Your task to perform on an android device: turn on the 24-hour format for clock Image 0: 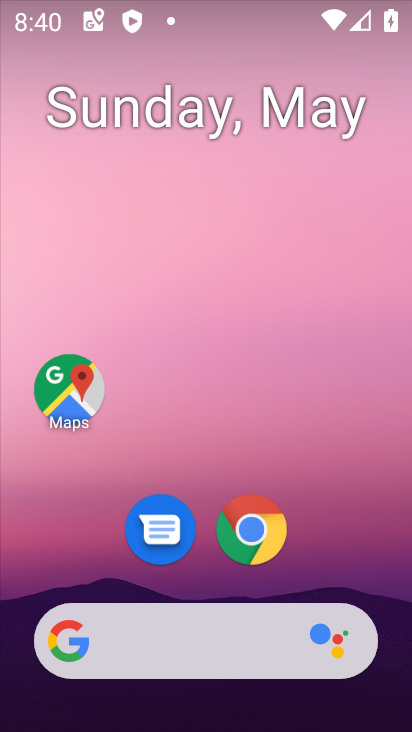
Step 0: press home button
Your task to perform on an android device: turn on the 24-hour format for clock Image 1: 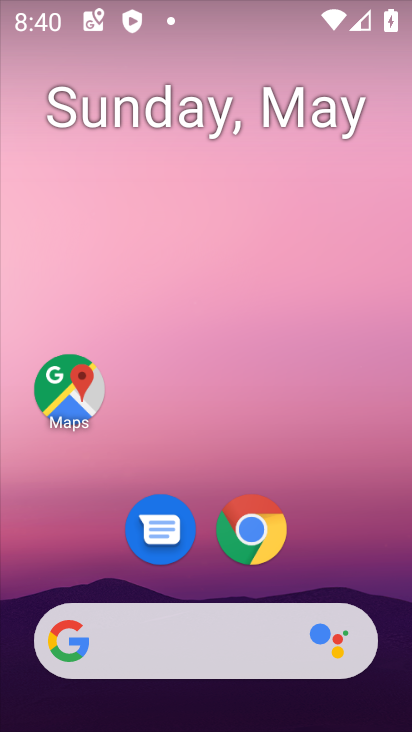
Step 1: drag from (331, 596) to (361, 70)
Your task to perform on an android device: turn on the 24-hour format for clock Image 2: 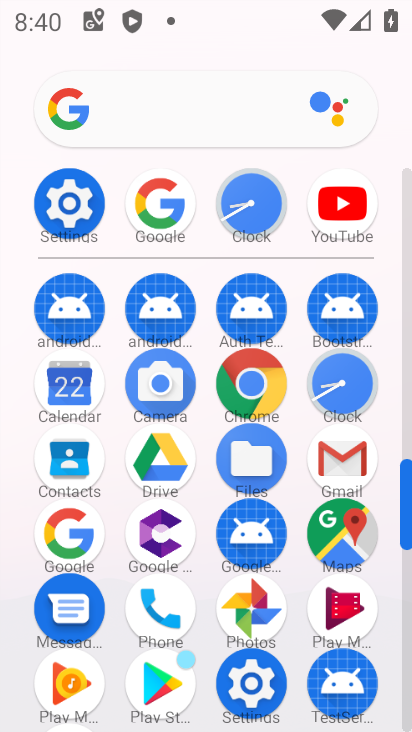
Step 2: click (249, 210)
Your task to perform on an android device: turn on the 24-hour format for clock Image 3: 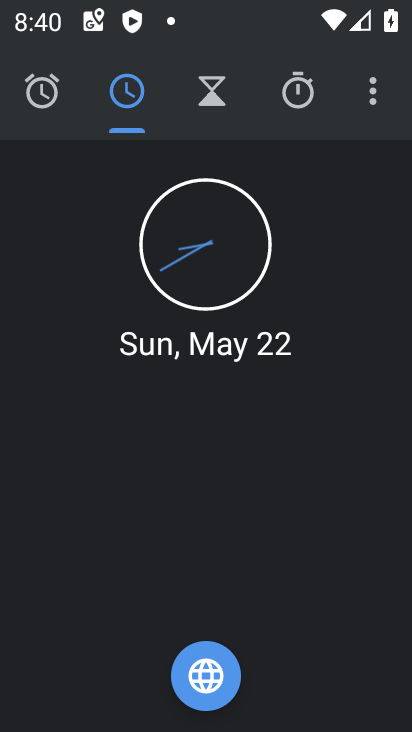
Step 3: click (372, 97)
Your task to perform on an android device: turn on the 24-hour format for clock Image 4: 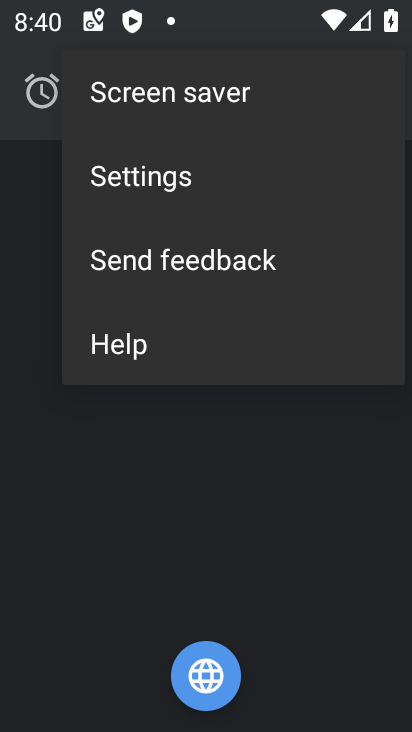
Step 4: click (138, 194)
Your task to perform on an android device: turn on the 24-hour format for clock Image 5: 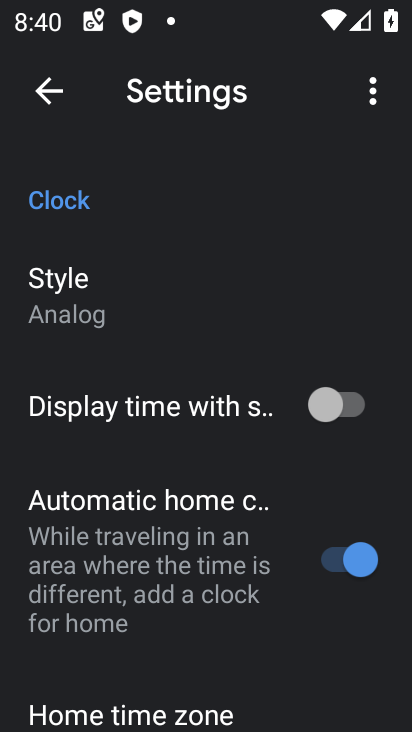
Step 5: drag from (156, 551) to (118, 35)
Your task to perform on an android device: turn on the 24-hour format for clock Image 6: 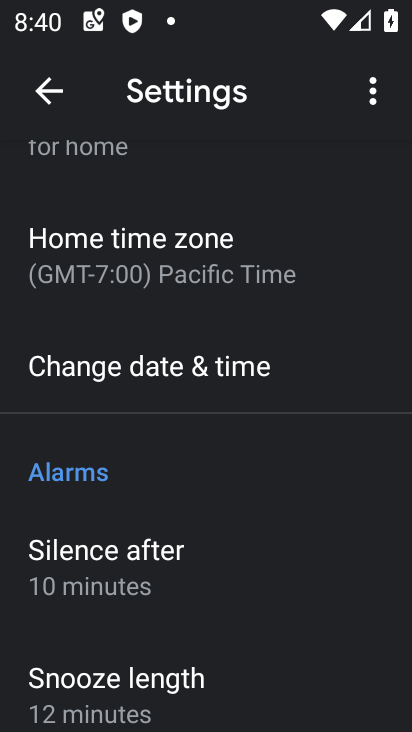
Step 6: click (127, 368)
Your task to perform on an android device: turn on the 24-hour format for clock Image 7: 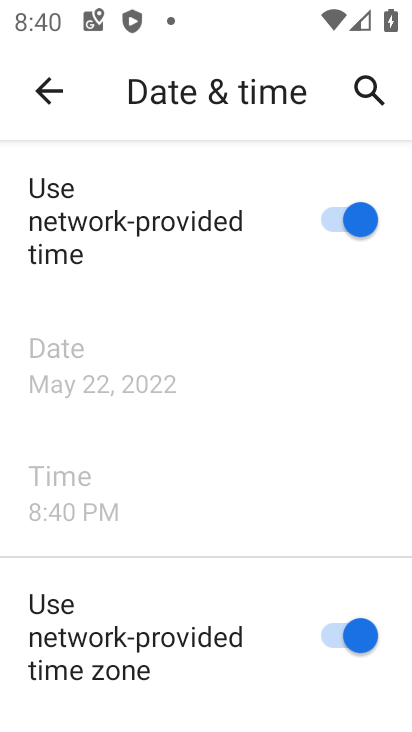
Step 7: drag from (154, 92) to (133, 1)
Your task to perform on an android device: turn on the 24-hour format for clock Image 8: 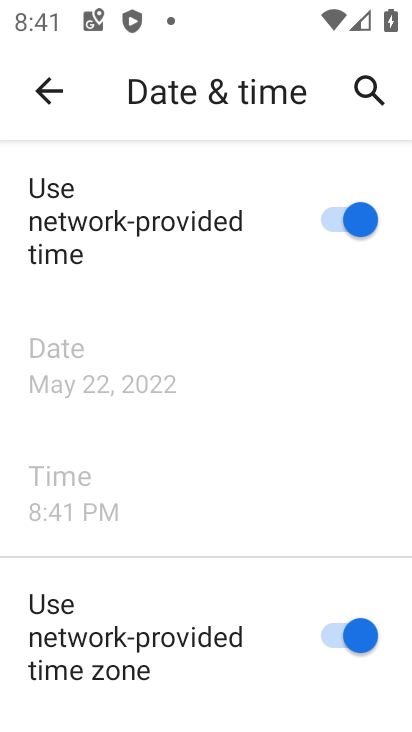
Step 8: drag from (193, 639) to (140, 90)
Your task to perform on an android device: turn on the 24-hour format for clock Image 9: 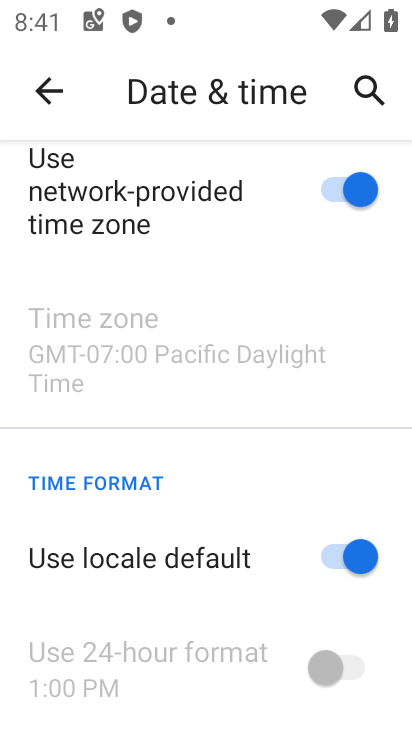
Step 9: drag from (130, 576) to (79, 195)
Your task to perform on an android device: turn on the 24-hour format for clock Image 10: 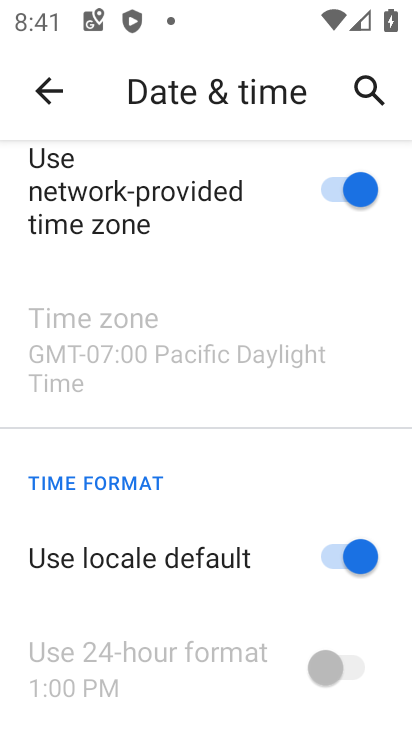
Step 10: click (349, 553)
Your task to perform on an android device: turn on the 24-hour format for clock Image 11: 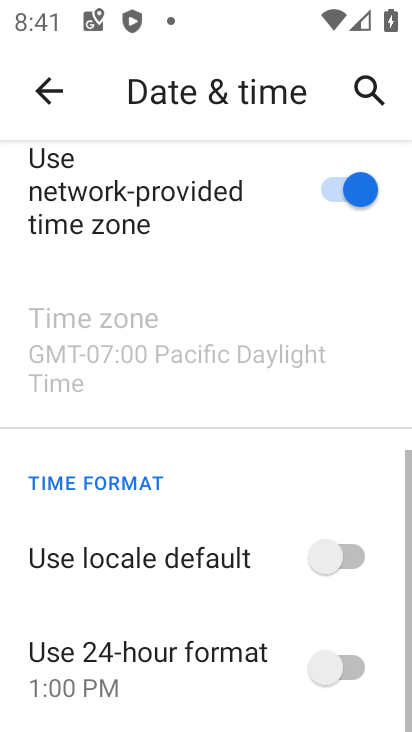
Step 11: click (331, 672)
Your task to perform on an android device: turn on the 24-hour format for clock Image 12: 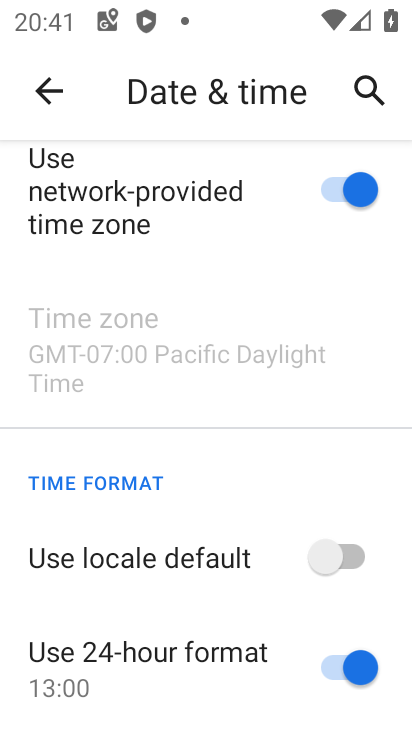
Step 12: task complete